Your task to perform on an android device: Clear the cart on target. Add razer blackwidow to the cart on target Image 0: 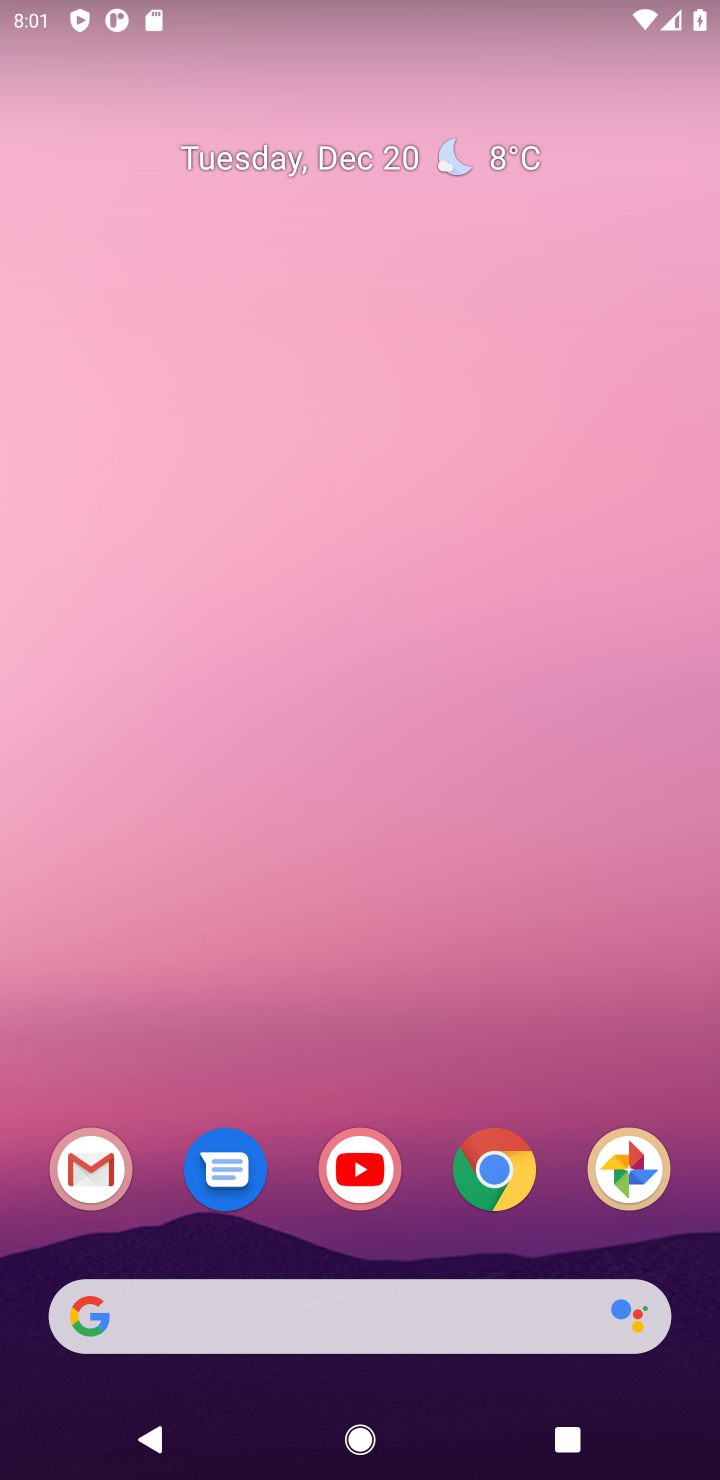
Step 0: click (481, 1155)
Your task to perform on an android device: Clear the cart on target. Add razer blackwidow to the cart on target Image 1: 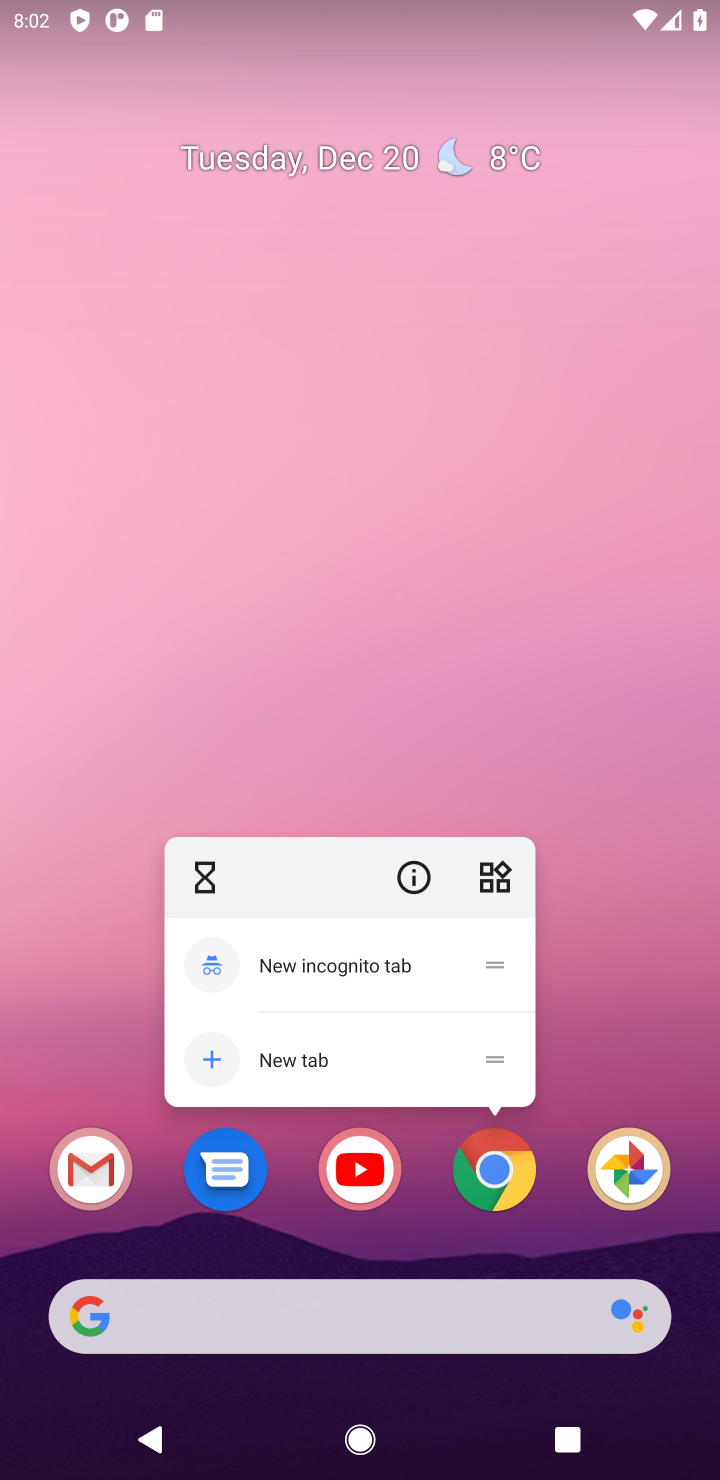
Step 1: click (489, 1192)
Your task to perform on an android device: Clear the cart on target. Add razer blackwidow to the cart on target Image 2: 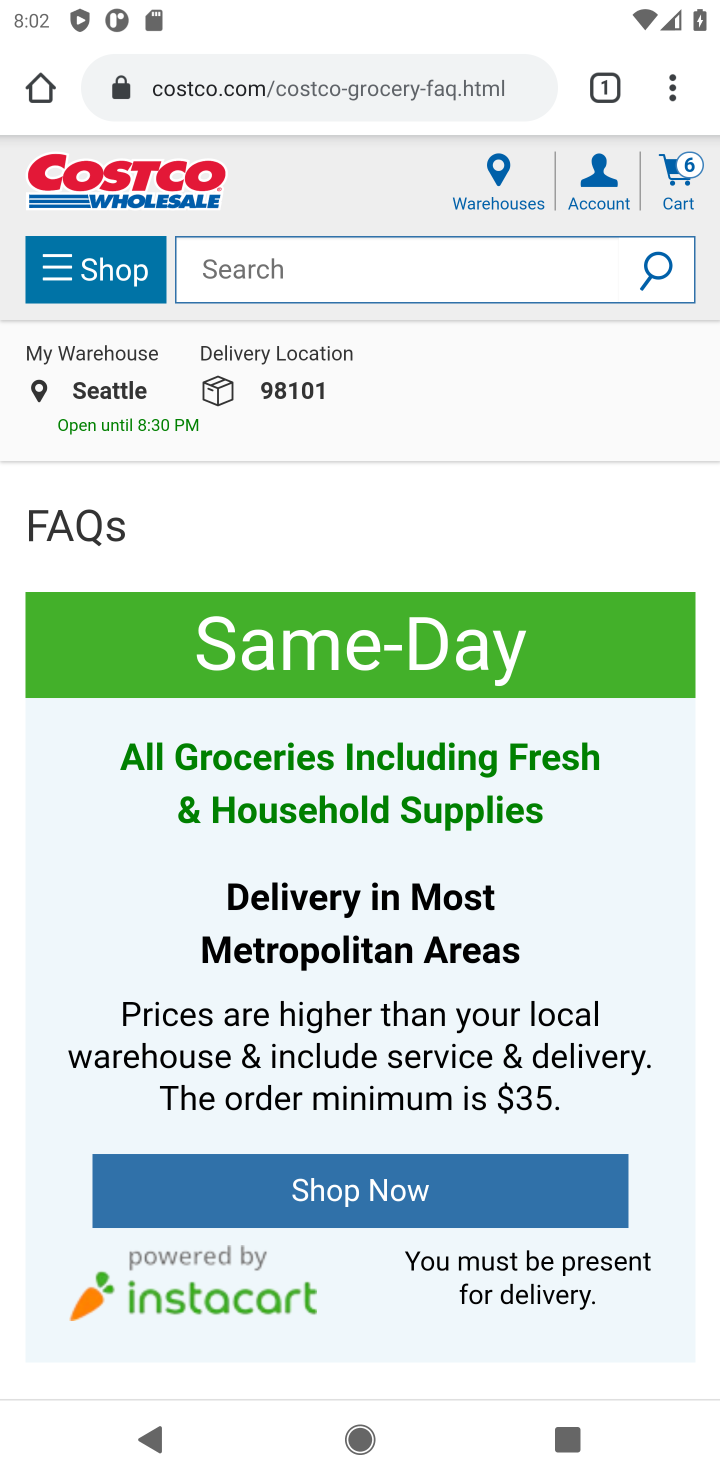
Step 2: task complete